Your task to perform on an android device: check battery use Image 0: 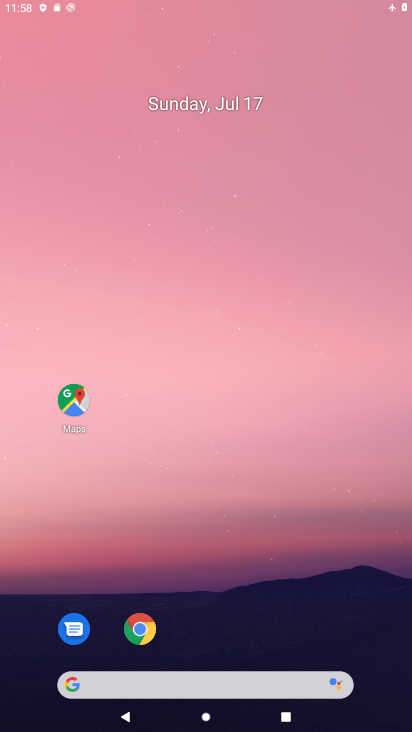
Step 0: press home button
Your task to perform on an android device: check battery use Image 1: 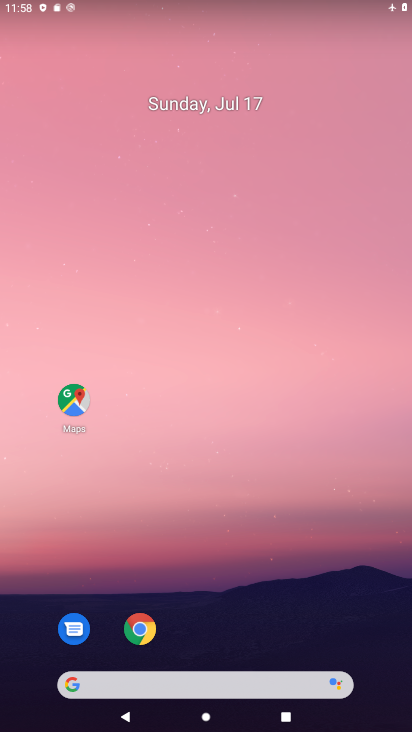
Step 1: drag from (227, 646) to (273, 40)
Your task to perform on an android device: check battery use Image 2: 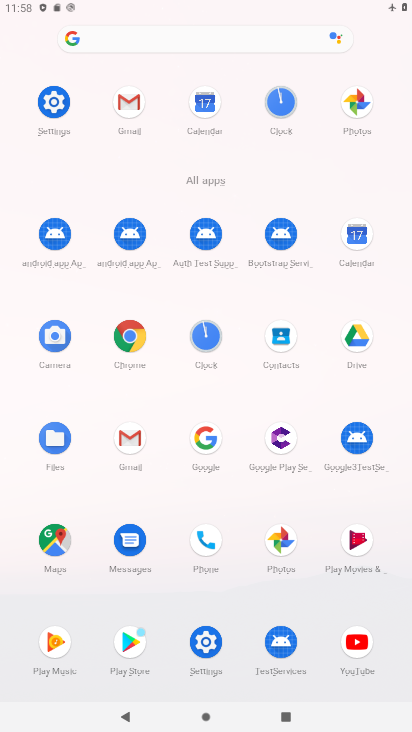
Step 2: click (53, 92)
Your task to perform on an android device: check battery use Image 3: 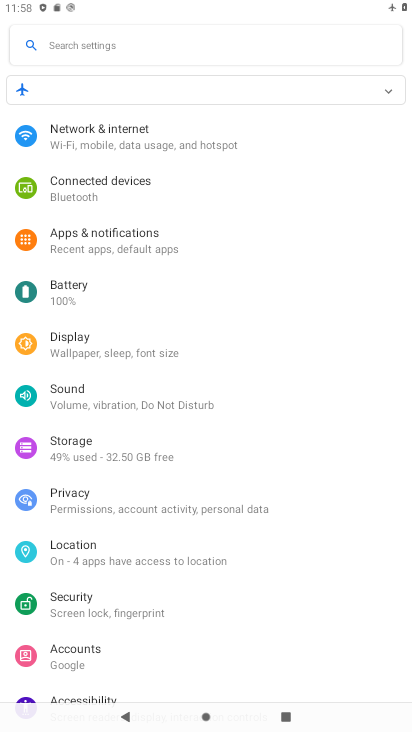
Step 3: click (88, 291)
Your task to perform on an android device: check battery use Image 4: 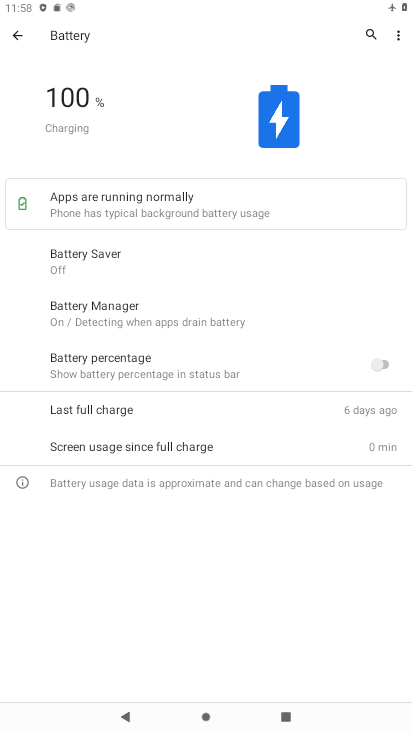
Step 4: click (400, 31)
Your task to perform on an android device: check battery use Image 5: 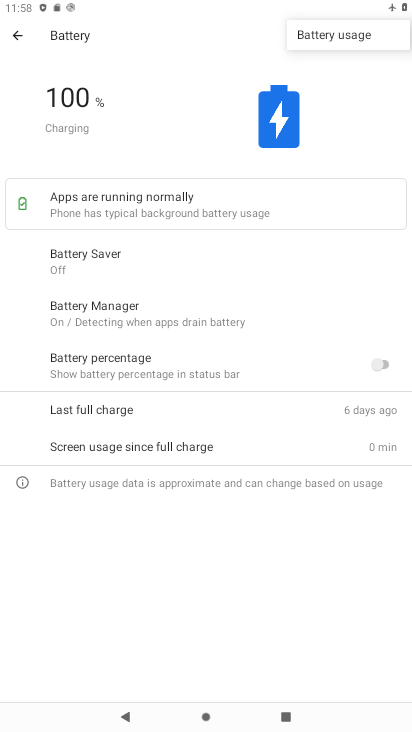
Step 5: click (336, 29)
Your task to perform on an android device: check battery use Image 6: 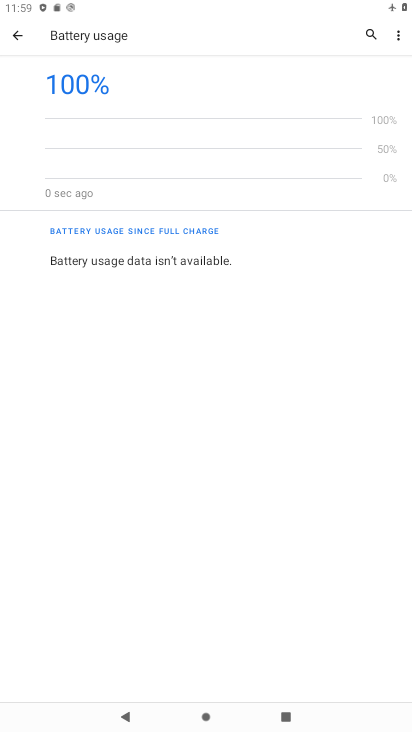
Step 6: task complete